Your task to perform on an android device: Open Wikipedia Image 0: 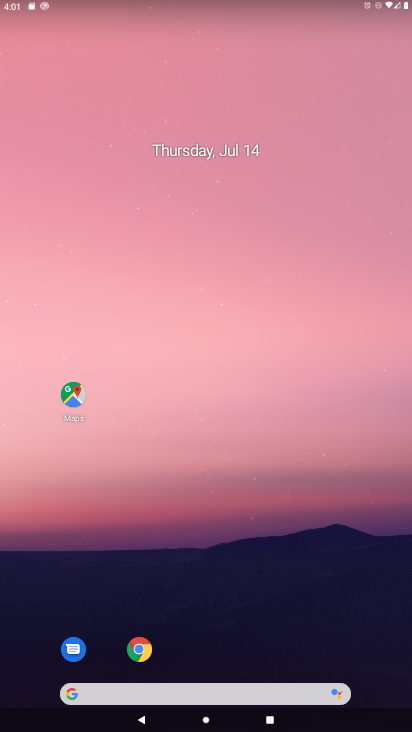
Step 0: click (139, 647)
Your task to perform on an android device: Open Wikipedia Image 1: 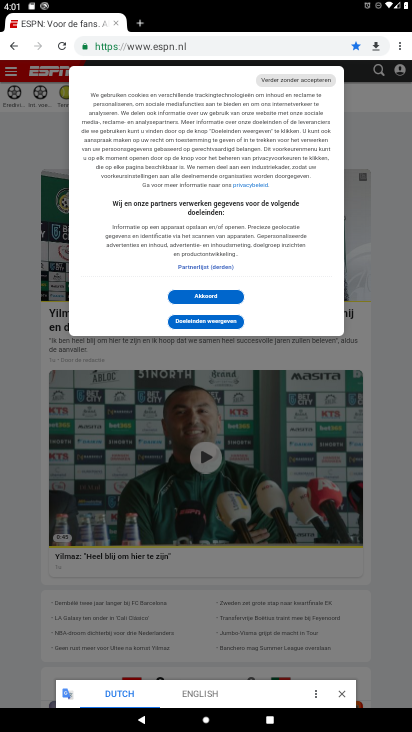
Step 1: click (249, 44)
Your task to perform on an android device: Open Wikipedia Image 2: 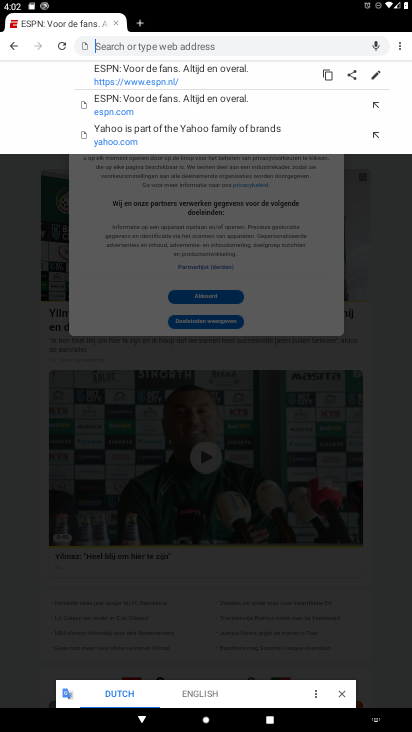
Step 2: type "wikipedia"
Your task to perform on an android device: Open Wikipedia Image 3: 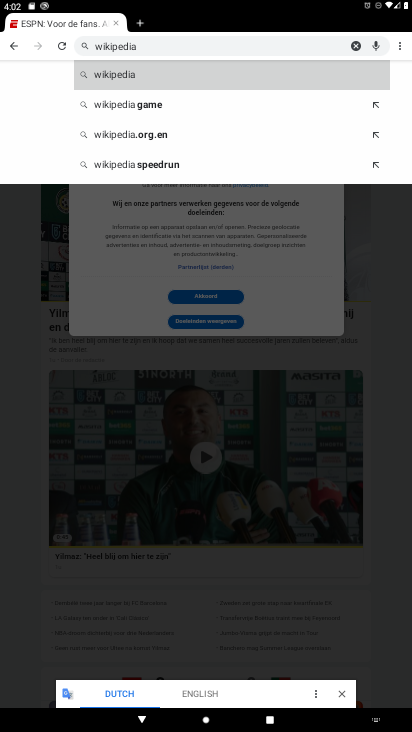
Step 3: click (120, 76)
Your task to perform on an android device: Open Wikipedia Image 4: 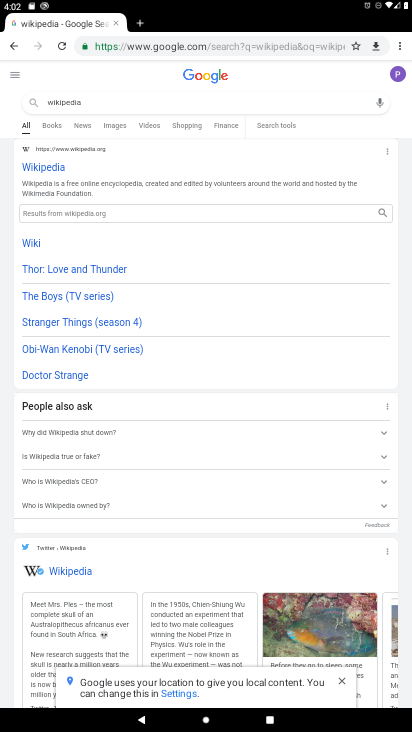
Step 4: click (60, 172)
Your task to perform on an android device: Open Wikipedia Image 5: 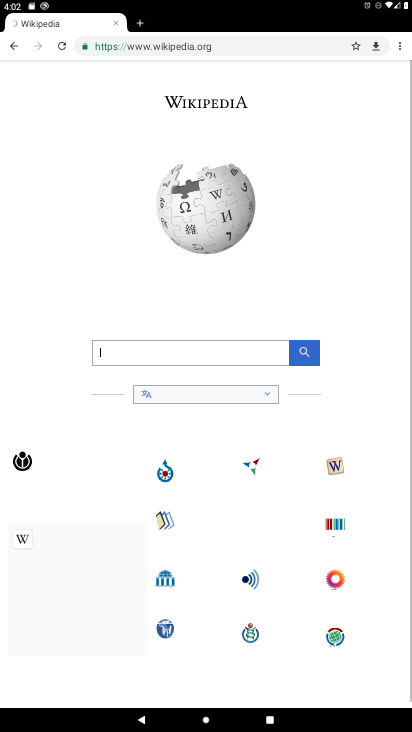
Step 5: task complete